Your task to perform on an android device: change the clock style Image 0: 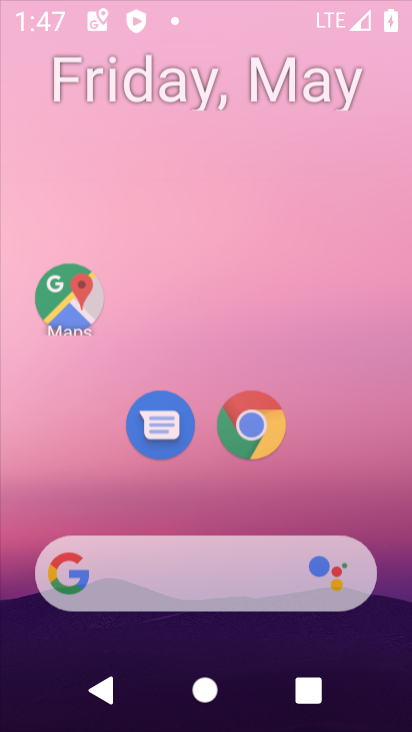
Step 0: press home button
Your task to perform on an android device: change the clock style Image 1: 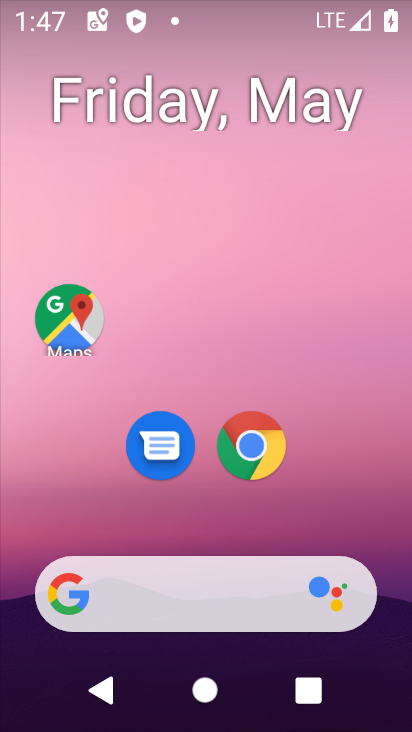
Step 1: drag from (211, 524) to (173, 144)
Your task to perform on an android device: change the clock style Image 2: 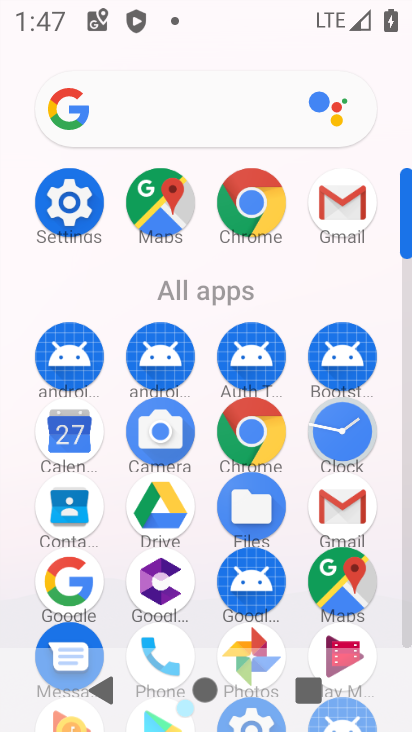
Step 2: click (339, 421)
Your task to perform on an android device: change the clock style Image 3: 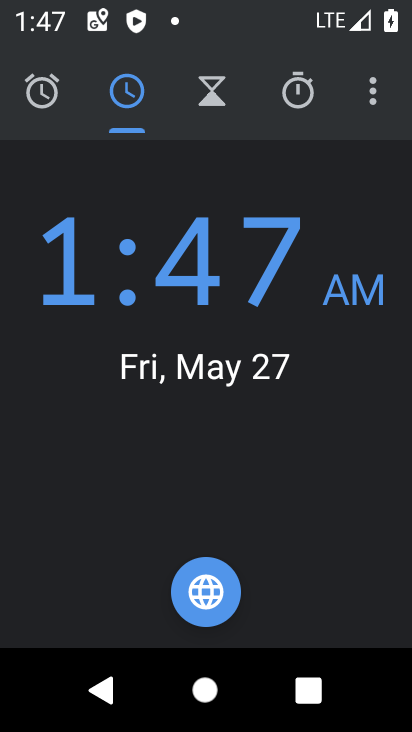
Step 3: click (373, 90)
Your task to perform on an android device: change the clock style Image 4: 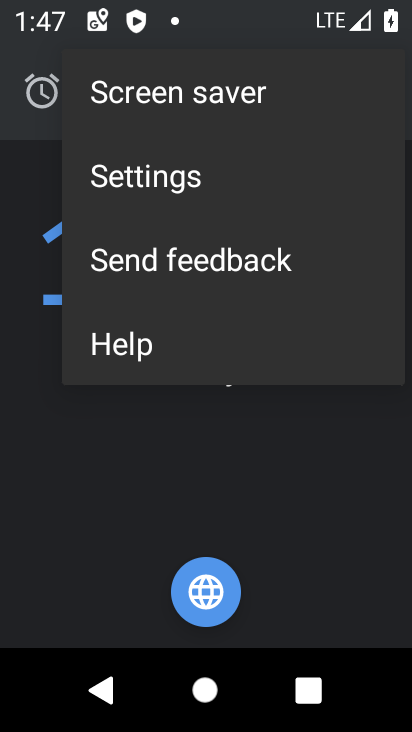
Step 4: click (218, 177)
Your task to perform on an android device: change the clock style Image 5: 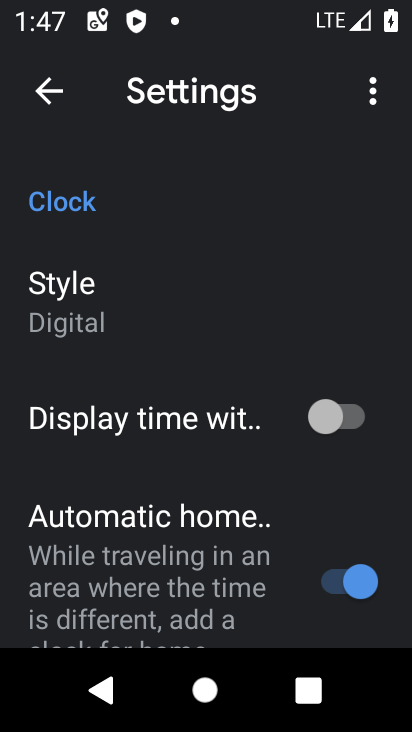
Step 5: click (131, 300)
Your task to perform on an android device: change the clock style Image 6: 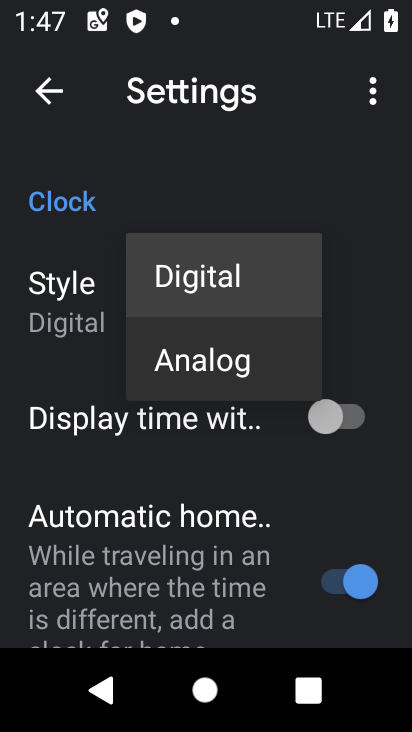
Step 6: click (261, 352)
Your task to perform on an android device: change the clock style Image 7: 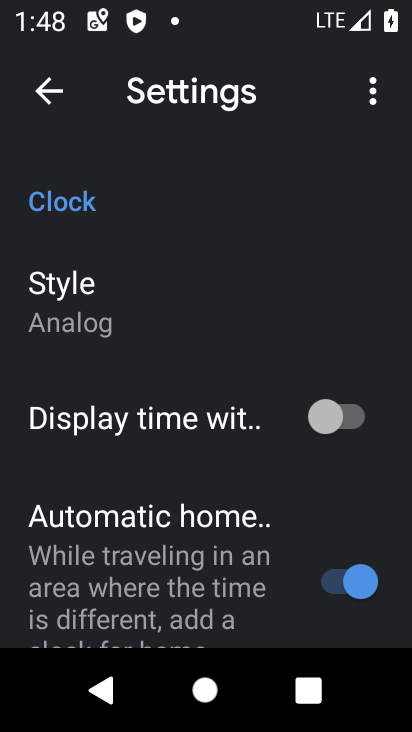
Step 7: task complete